Your task to perform on an android device: Show me popular videos on Youtube Image 0: 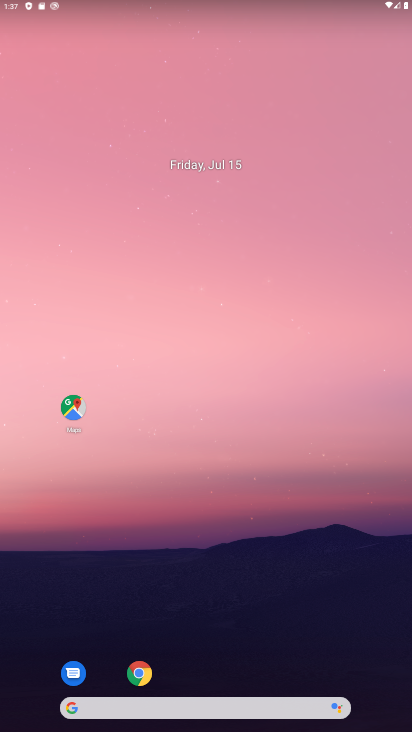
Step 0: drag from (222, 685) to (321, 205)
Your task to perform on an android device: Show me popular videos on Youtube Image 1: 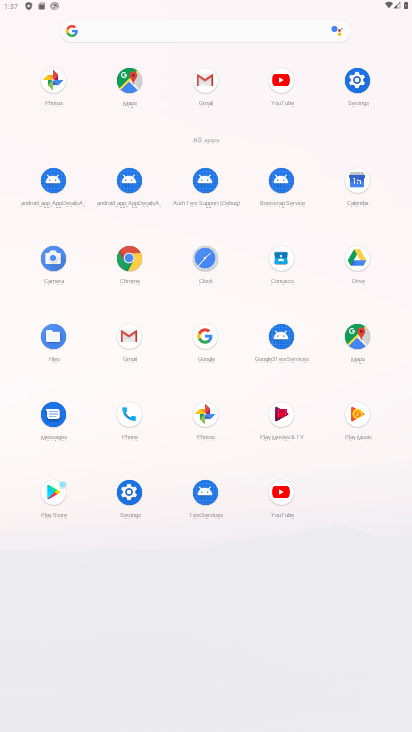
Step 1: click (282, 495)
Your task to perform on an android device: Show me popular videos on Youtube Image 2: 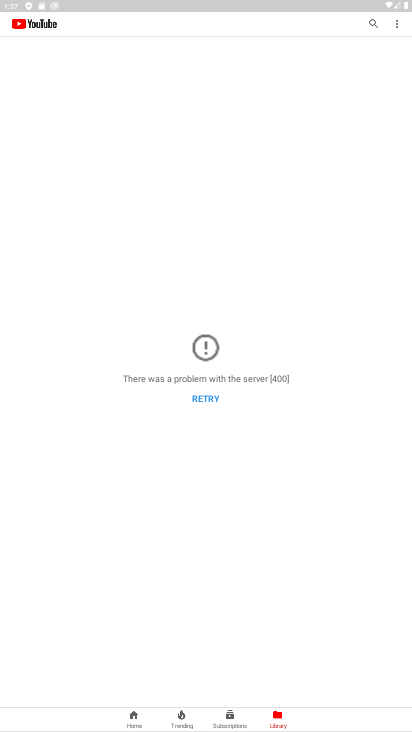
Step 2: task complete